Your task to perform on an android device: see creations saved in the google photos Image 0: 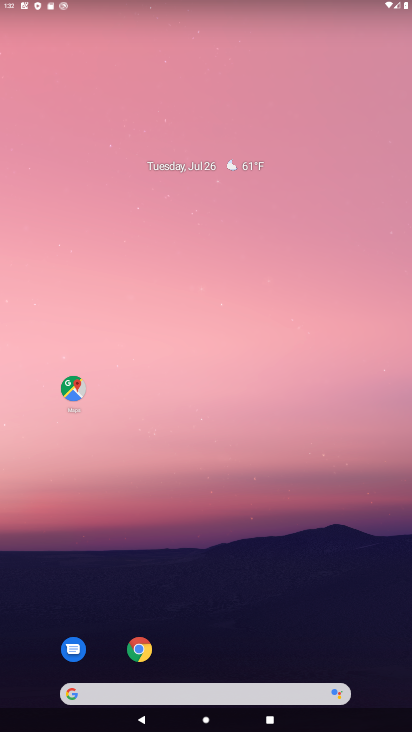
Step 0: click (281, 68)
Your task to perform on an android device: see creations saved in the google photos Image 1: 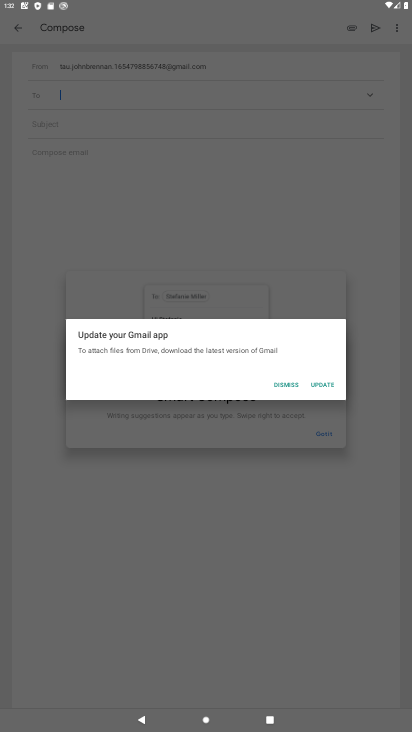
Step 1: press home button
Your task to perform on an android device: see creations saved in the google photos Image 2: 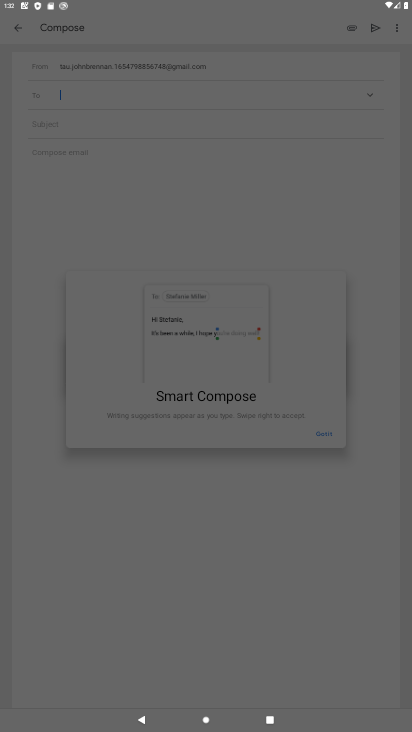
Step 2: press home button
Your task to perform on an android device: see creations saved in the google photos Image 3: 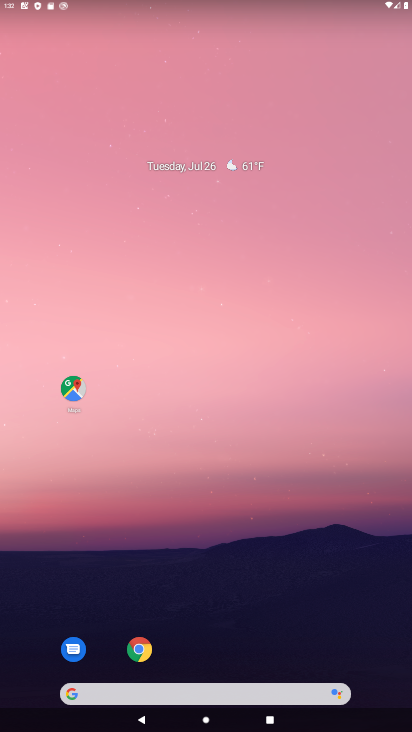
Step 3: drag from (217, 645) to (226, 29)
Your task to perform on an android device: see creations saved in the google photos Image 4: 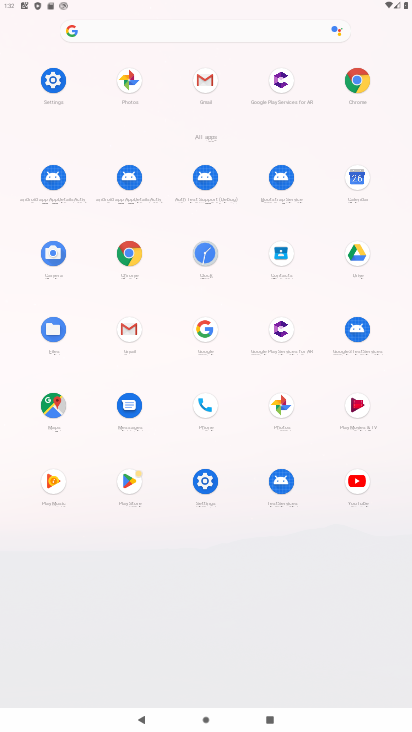
Step 4: click (281, 398)
Your task to perform on an android device: see creations saved in the google photos Image 5: 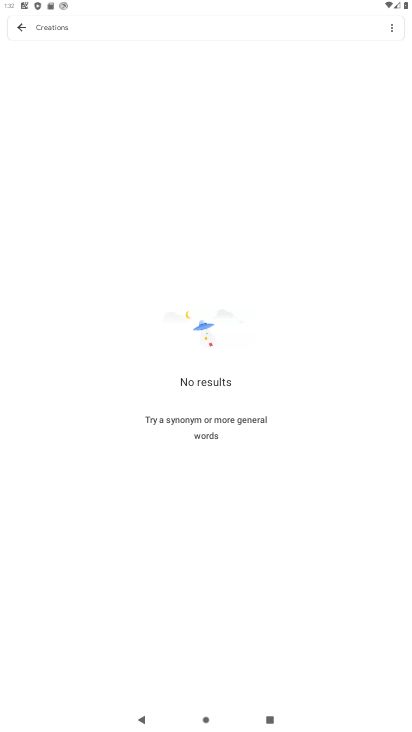
Step 5: click (23, 28)
Your task to perform on an android device: see creations saved in the google photos Image 6: 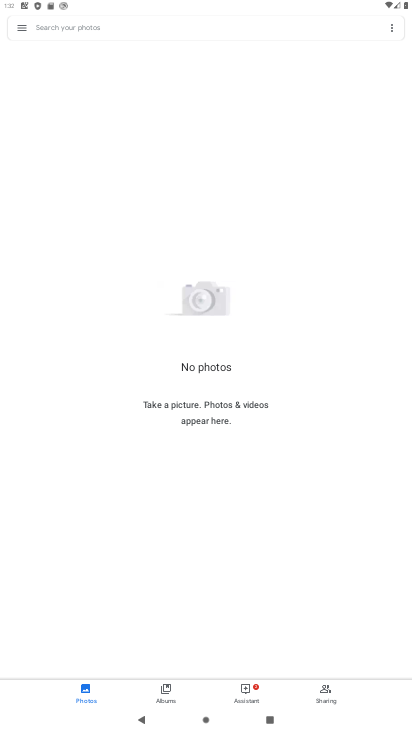
Step 6: click (18, 32)
Your task to perform on an android device: see creations saved in the google photos Image 7: 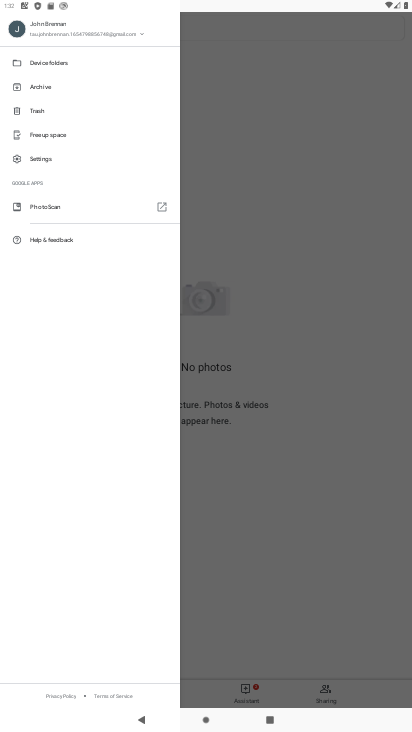
Step 7: click (271, 346)
Your task to perform on an android device: see creations saved in the google photos Image 8: 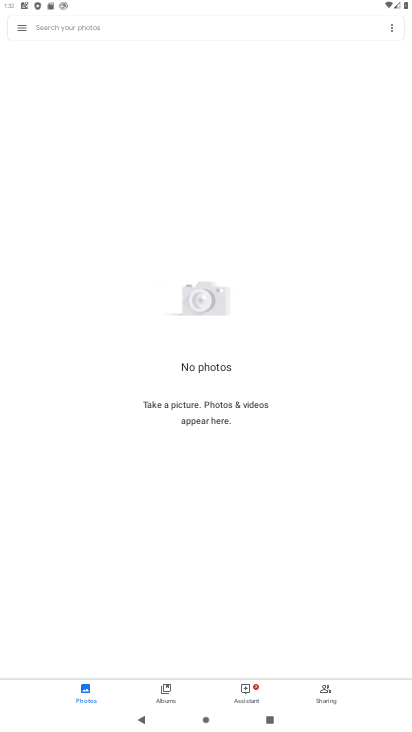
Step 8: click (81, 19)
Your task to perform on an android device: see creations saved in the google photos Image 9: 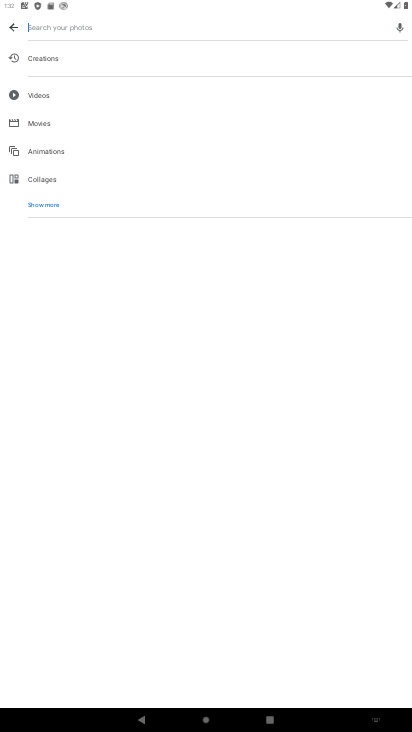
Step 9: click (50, 207)
Your task to perform on an android device: see creations saved in the google photos Image 10: 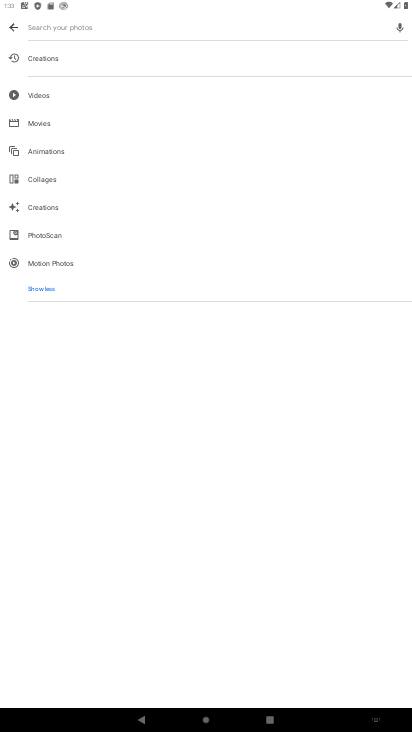
Step 10: click (62, 207)
Your task to perform on an android device: see creations saved in the google photos Image 11: 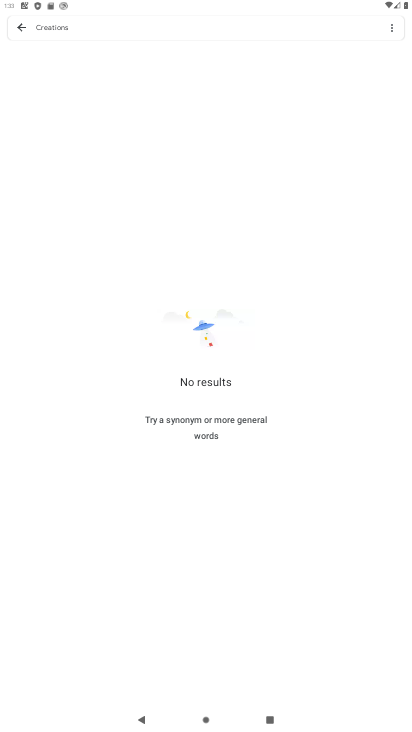
Step 11: task complete